Your task to perform on an android device: turn notification dots off Image 0: 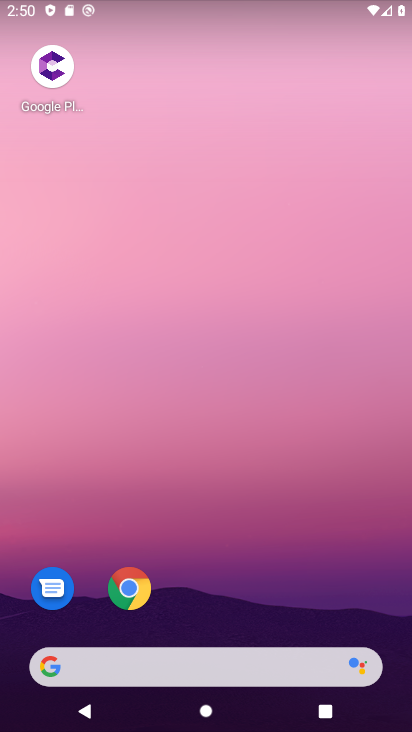
Step 0: drag from (209, 645) to (149, 105)
Your task to perform on an android device: turn notification dots off Image 1: 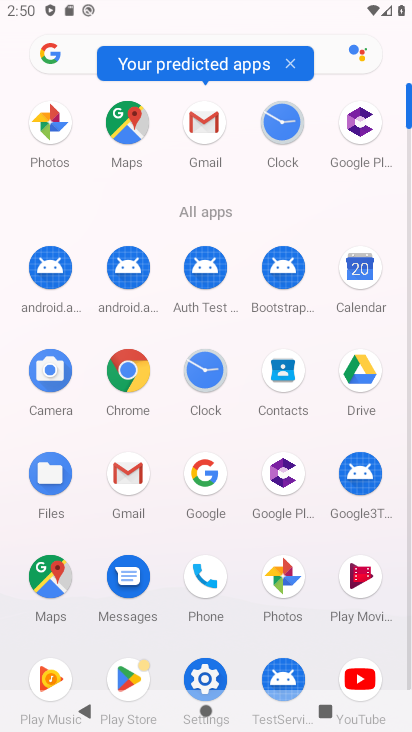
Step 1: click (204, 677)
Your task to perform on an android device: turn notification dots off Image 2: 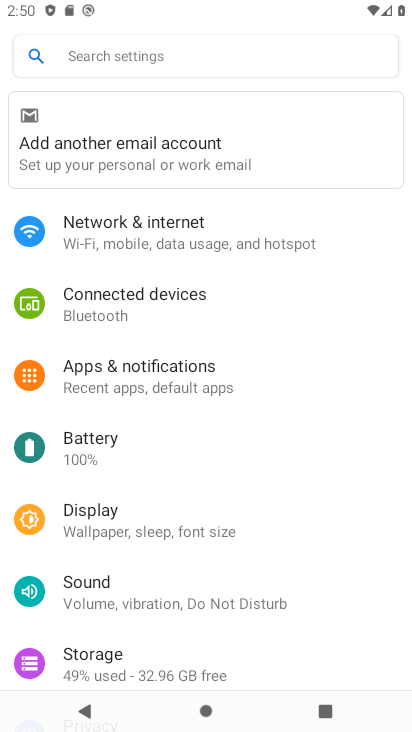
Step 2: click (111, 360)
Your task to perform on an android device: turn notification dots off Image 3: 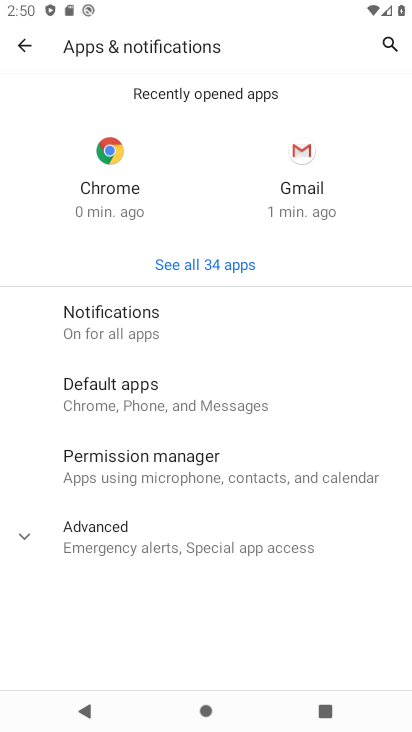
Step 3: click (109, 543)
Your task to perform on an android device: turn notification dots off Image 4: 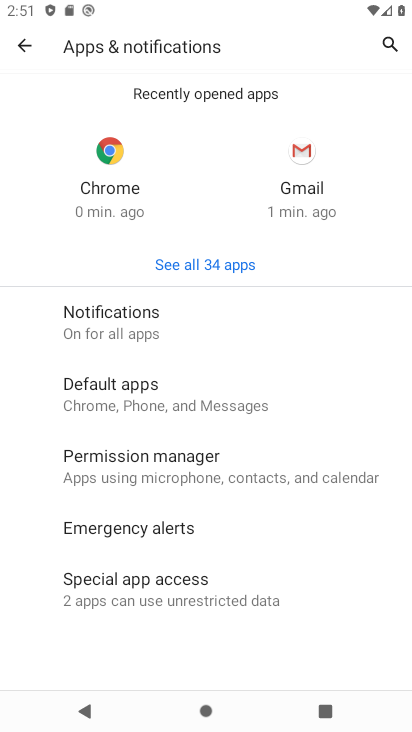
Step 4: click (194, 322)
Your task to perform on an android device: turn notification dots off Image 5: 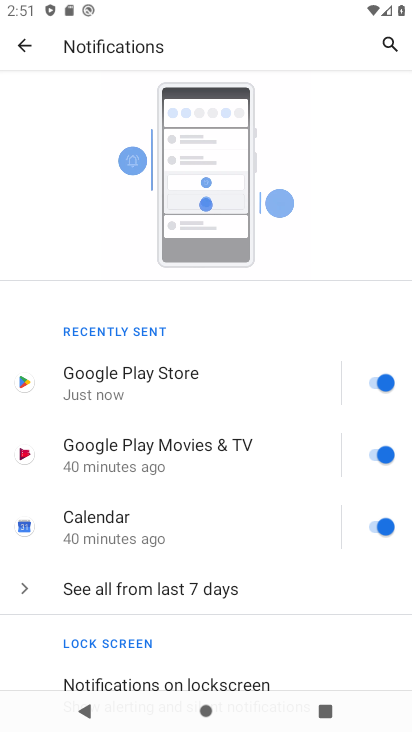
Step 5: drag from (223, 584) to (221, 196)
Your task to perform on an android device: turn notification dots off Image 6: 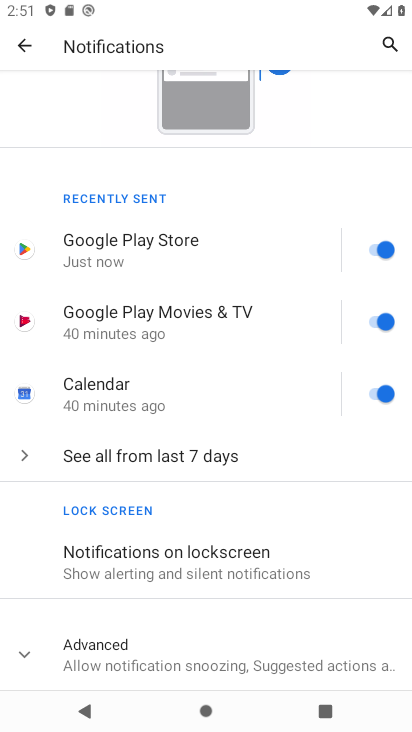
Step 6: click (270, 651)
Your task to perform on an android device: turn notification dots off Image 7: 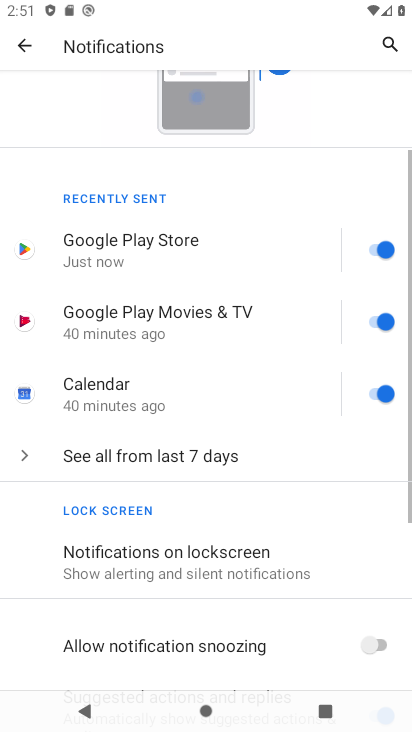
Step 7: drag from (270, 651) to (162, 189)
Your task to perform on an android device: turn notification dots off Image 8: 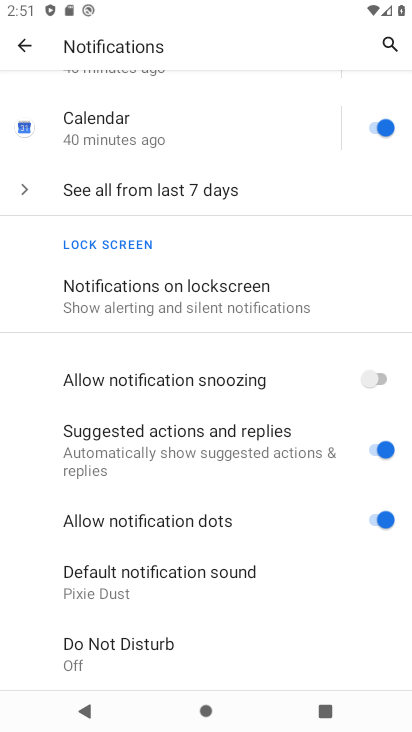
Step 8: click (381, 516)
Your task to perform on an android device: turn notification dots off Image 9: 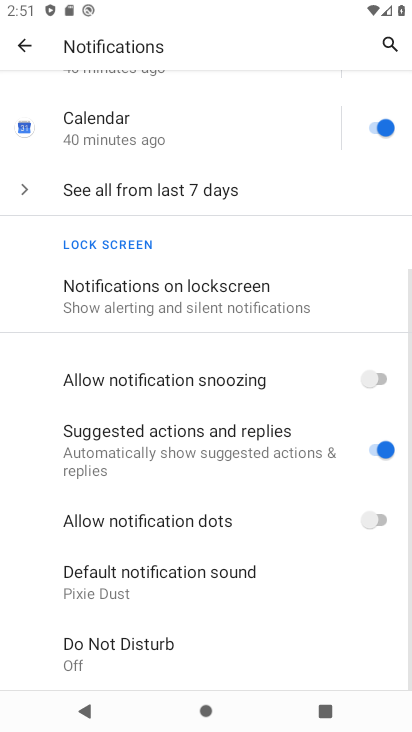
Step 9: task complete